Your task to perform on an android device: Open Android settings Image 0: 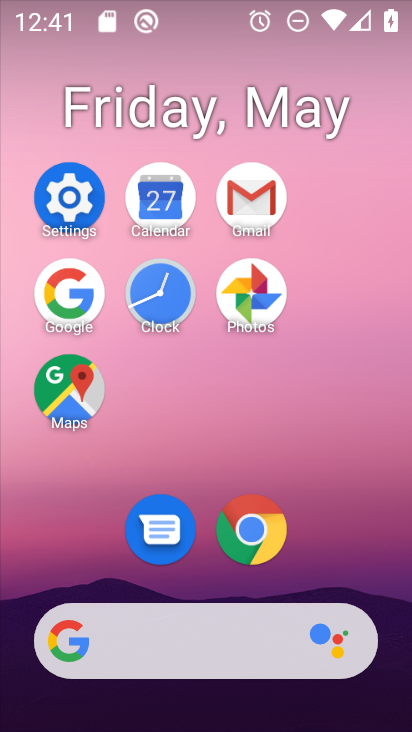
Step 0: click (82, 189)
Your task to perform on an android device: Open Android settings Image 1: 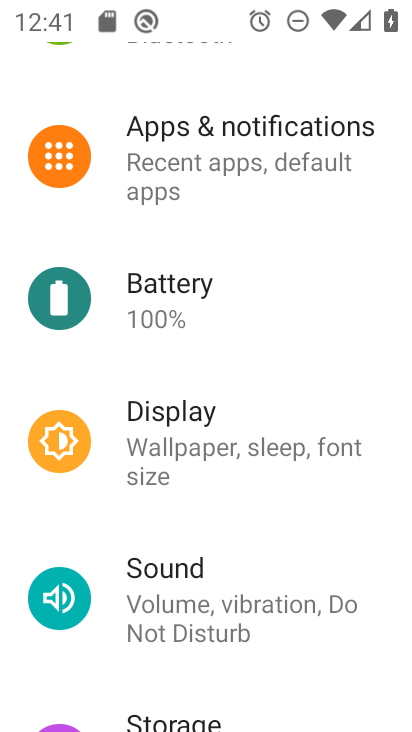
Step 1: task complete